Your task to perform on an android device: change the clock display to show seconds Image 0: 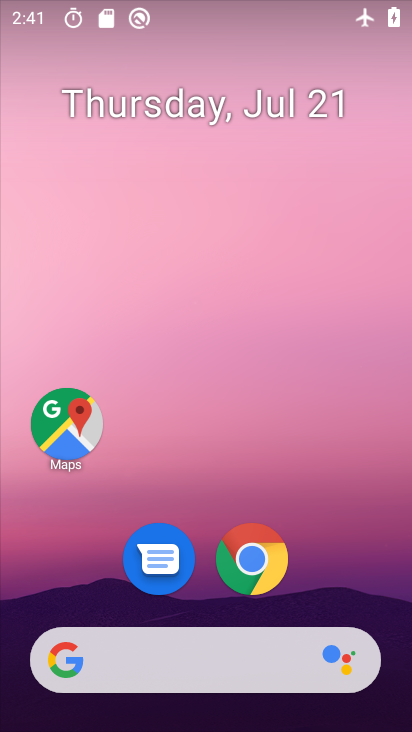
Step 0: drag from (365, 536) to (362, 287)
Your task to perform on an android device: change the clock display to show seconds Image 1: 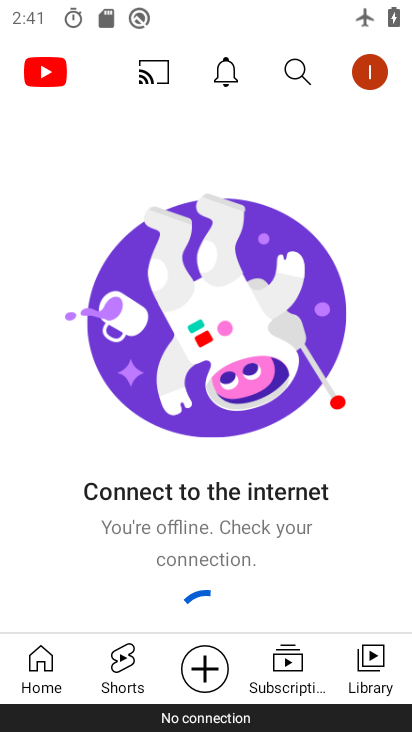
Step 1: press home button
Your task to perform on an android device: change the clock display to show seconds Image 2: 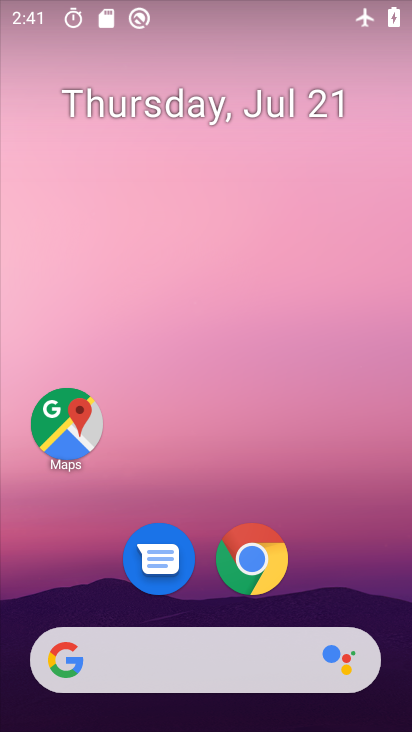
Step 2: drag from (349, 382) to (359, 123)
Your task to perform on an android device: change the clock display to show seconds Image 3: 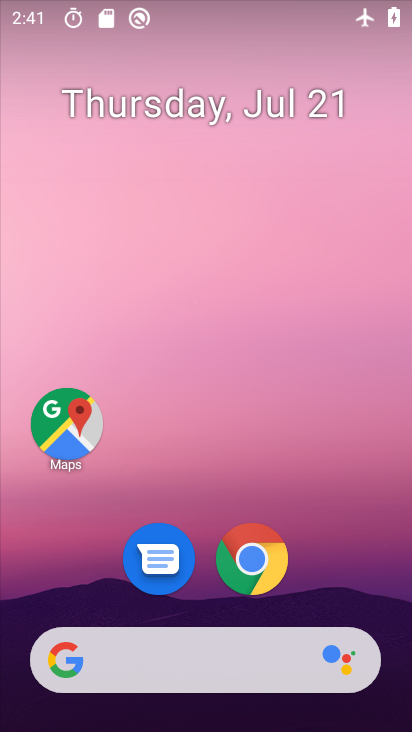
Step 3: drag from (352, 500) to (364, 62)
Your task to perform on an android device: change the clock display to show seconds Image 4: 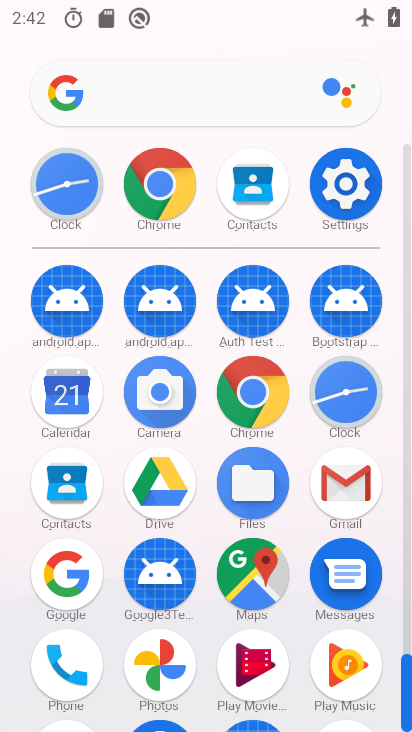
Step 4: click (359, 388)
Your task to perform on an android device: change the clock display to show seconds Image 5: 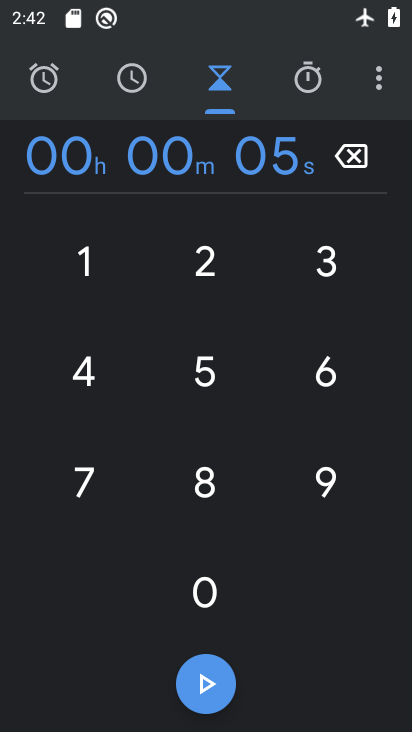
Step 5: click (380, 93)
Your task to perform on an android device: change the clock display to show seconds Image 6: 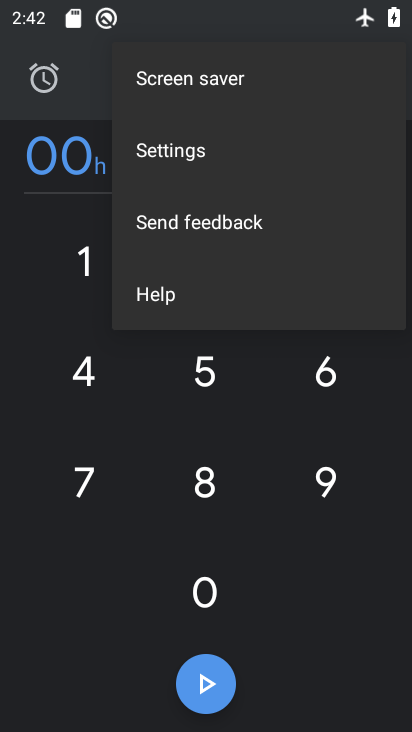
Step 6: click (248, 145)
Your task to perform on an android device: change the clock display to show seconds Image 7: 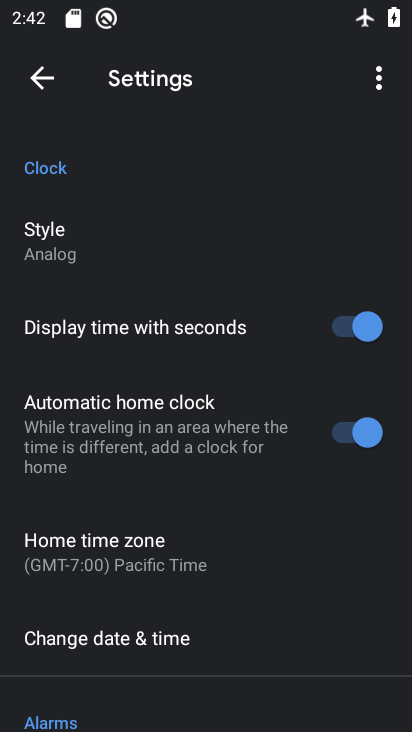
Step 7: task complete